Your task to perform on an android device: Search for vegetarian restaurants on Maps Image 0: 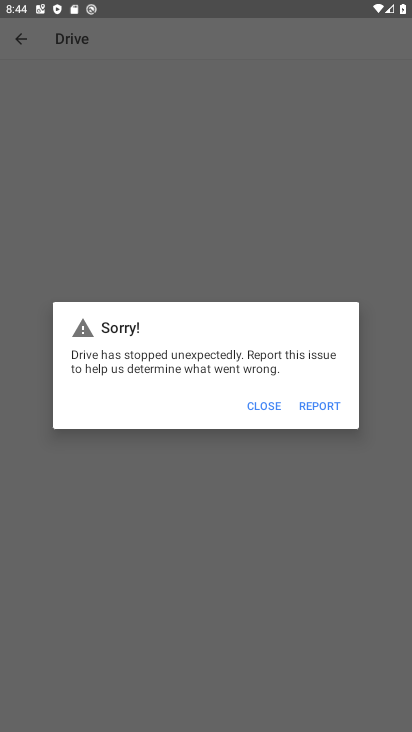
Step 0: press home button
Your task to perform on an android device: Search for vegetarian restaurants on Maps Image 1: 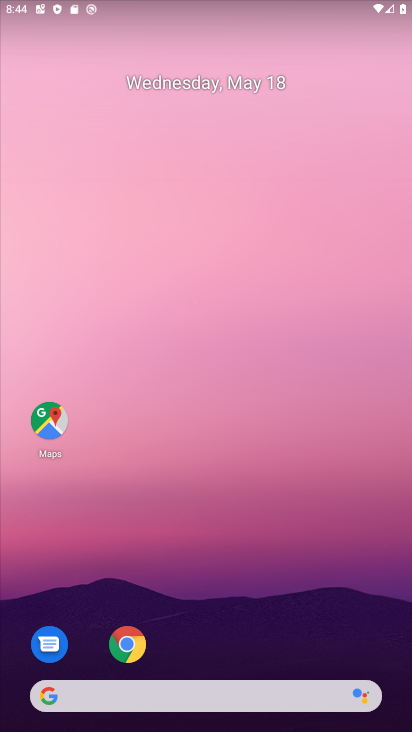
Step 1: click (48, 434)
Your task to perform on an android device: Search for vegetarian restaurants on Maps Image 2: 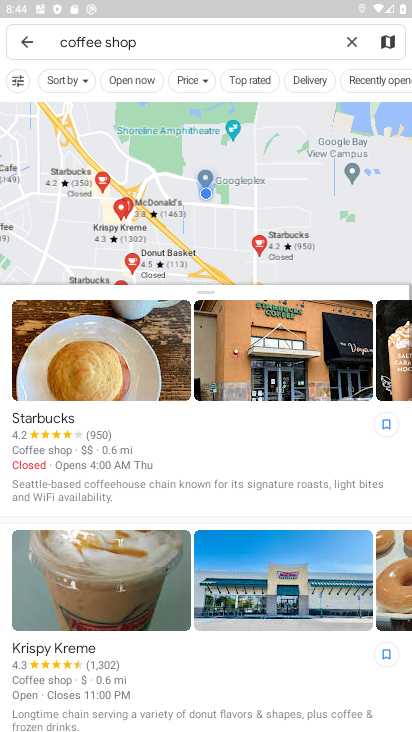
Step 2: click (351, 48)
Your task to perform on an android device: Search for vegetarian restaurants on Maps Image 3: 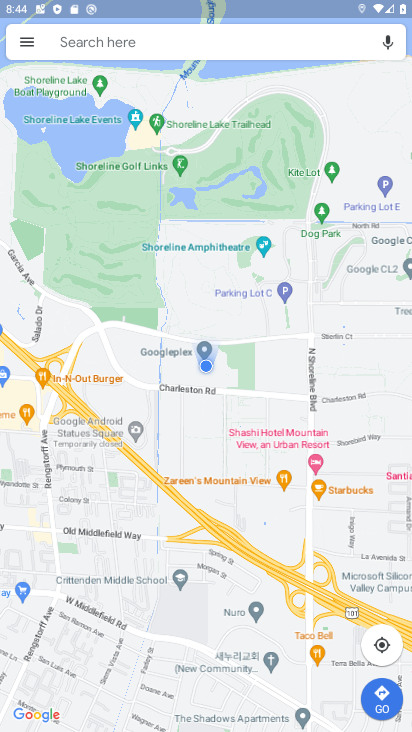
Step 3: click (99, 45)
Your task to perform on an android device: Search for vegetarian restaurants on Maps Image 4: 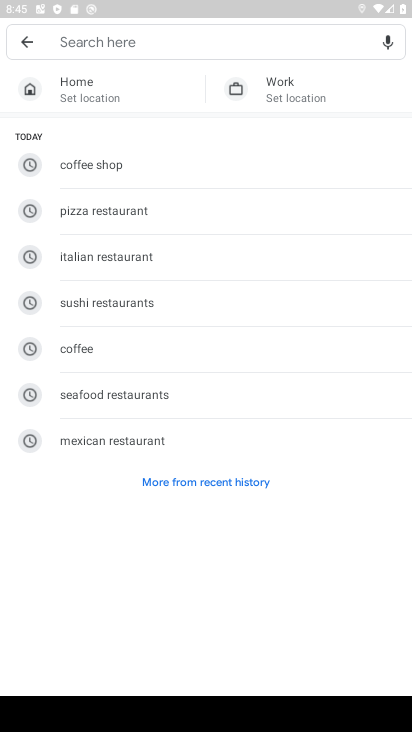
Step 4: type "vegetarian"
Your task to perform on an android device: Search for vegetarian restaurants on Maps Image 5: 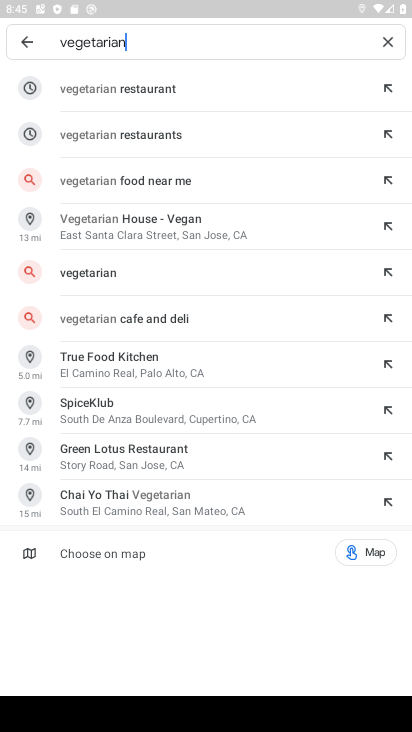
Step 5: click (180, 95)
Your task to perform on an android device: Search for vegetarian restaurants on Maps Image 6: 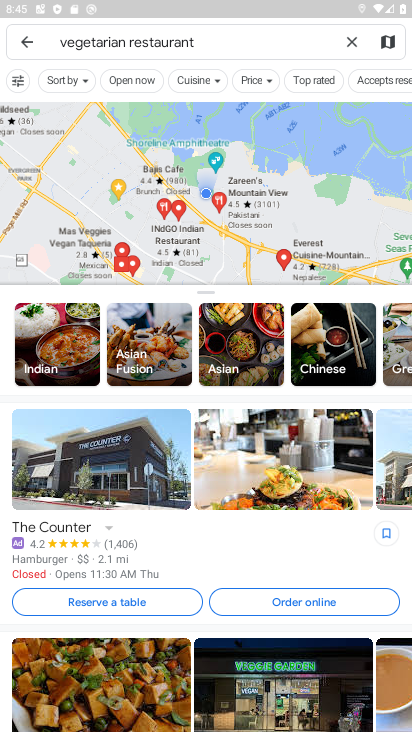
Step 6: task complete